Your task to perform on an android device: Search for Italian restaurants on Maps Image 0: 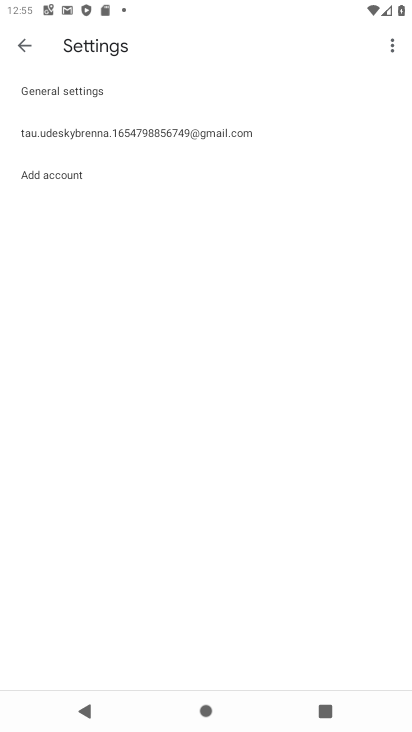
Step 0: press home button
Your task to perform on an android device: Search for Italian restaurants on Maps Image 1: 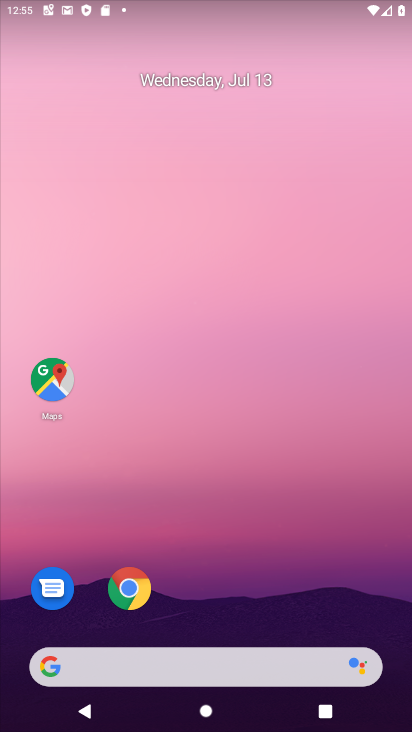
Step 1: drag from (219, 644) to (281, 285)
Your task to perform on an android device: Search for Italian restaurants on Maps Image 2: 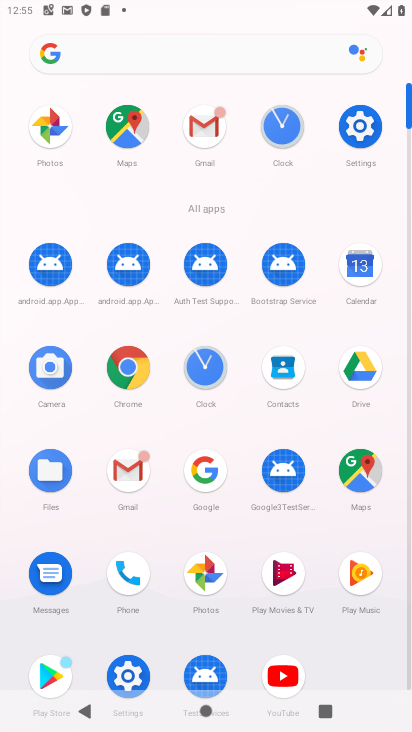
Step 2: click (139, 122)
Your task to perform on an android device: Search for Italian restaurants on Maps Image 3: 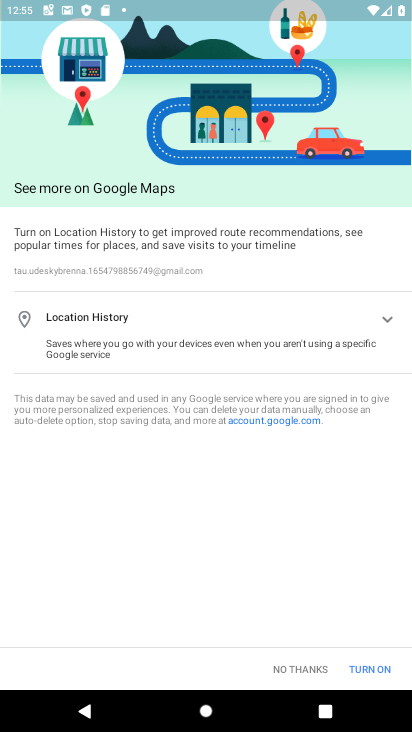
Step 3: click (377, 663)
Your task to perform on an android device: Search for Italian restaurants on Maps Image 4: 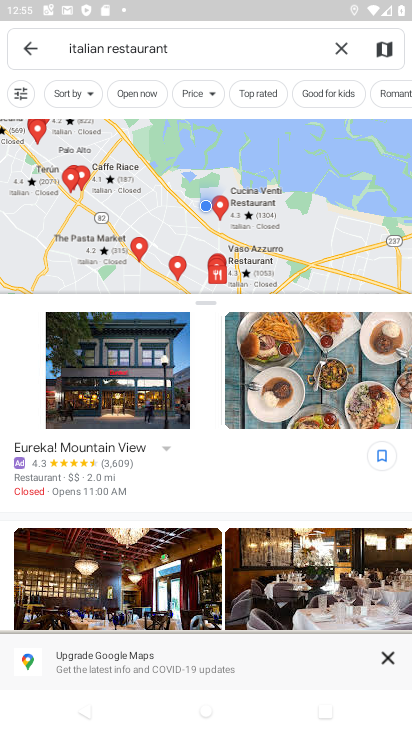
Step 4: task complete